Your task to perform on an android device: empty trash in google photos Image 0: 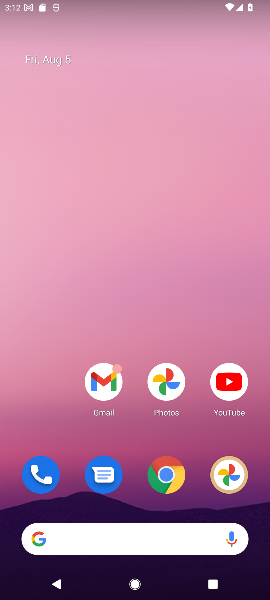
Step 0: click (167, 382)
Your task to perform on an android device: empty trash in google photos Image 1: 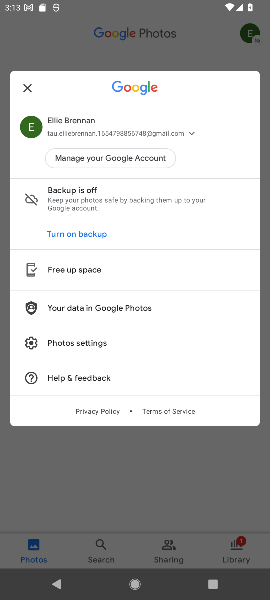
Step 1: task complete